Your task to perform on an android device: turn off priority inbox in the gmail app Image 0: 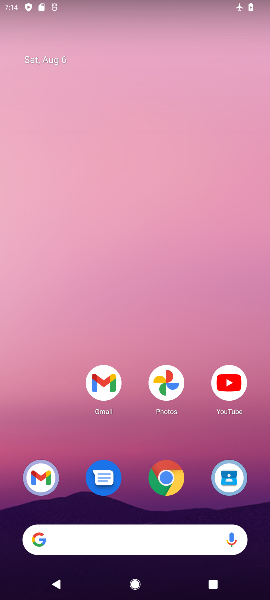
Step 0: press home button
Your task to perform on an android device: turn off priority inbox in the gmail app Image 1: 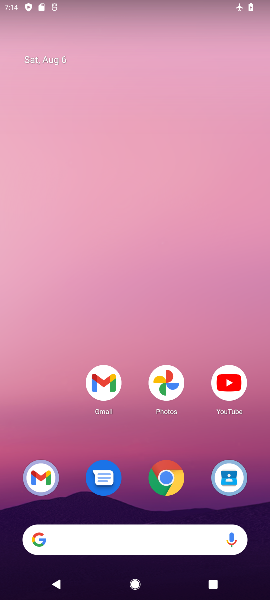
Step 1: drag from (52, 442) to (83, 56)
Your task to perform on an android device: turn off priority inbox in the gmail app Image 2: 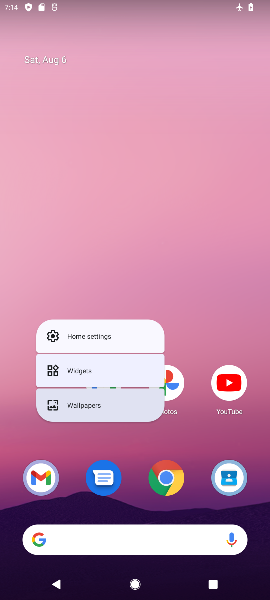
Step 2: drag from (186, 272) to (155, 4)
Your task to perform on an android device: turn off priority inbox in the gmail app Image 3: 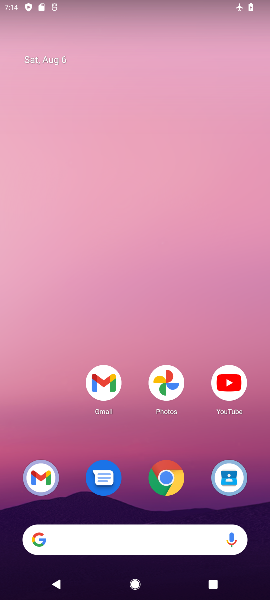
Step 3: drag from (44, 393) to (61, 57)
Your task to perform on an android device: turn off priority inbox in the gmail app Image 4: 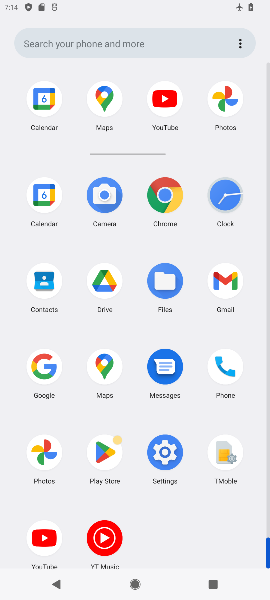
Step 4: click (223, 276)
Your task to perform on an android device: turn off priority inbox in the gmail app Image 5: 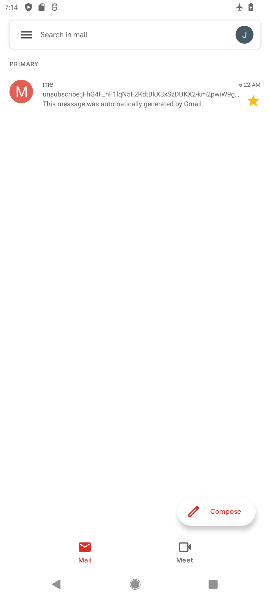
Step 5: click (22, 31)
Your task to perform on an android device: turn off priority inbox in the gmail app Image 6: 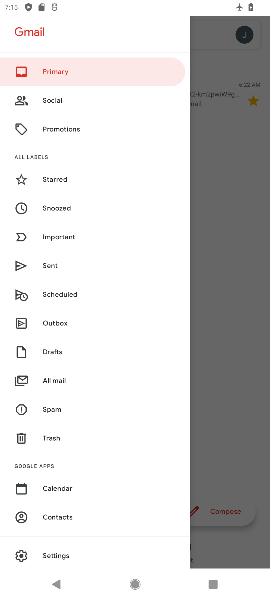
Step 6: click (54, 553)
Your task to perform on an android device: turn off priority inbox in the gmail app Image 7: 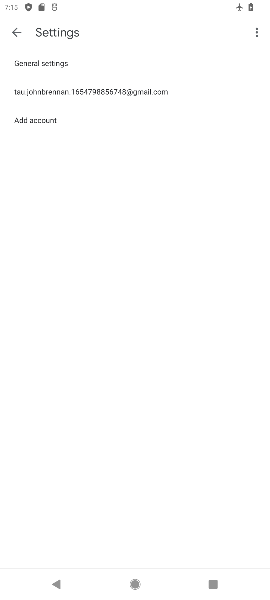
Step 7: click (42, 89)
Your task to perform on an android device: turn off priority inbox in the gmail app Image 8: 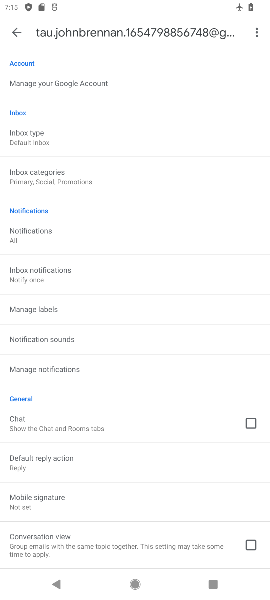
Step 8: click (25, 134)
Your task to perform on an android device: turn off priority inbox in the gmail app Image 9: 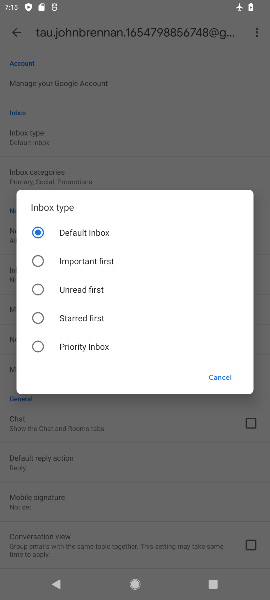
Step 9: task complete